Your task to perform on an android device: open device folders in google photos Image 0: 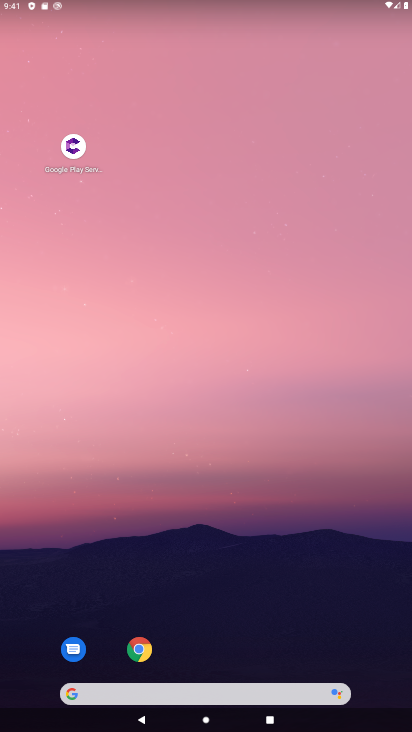
Step 0: click (347, 13)
Your task to perform on an android device: open device folders in google photos Image 1: 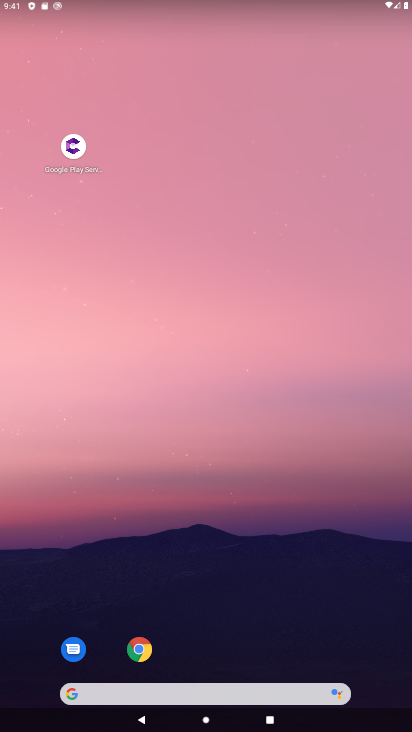
Step 1: drag from (219, 655) to (317, 68)
Your task to perform on an android device: open device folders in google photos Image 2: 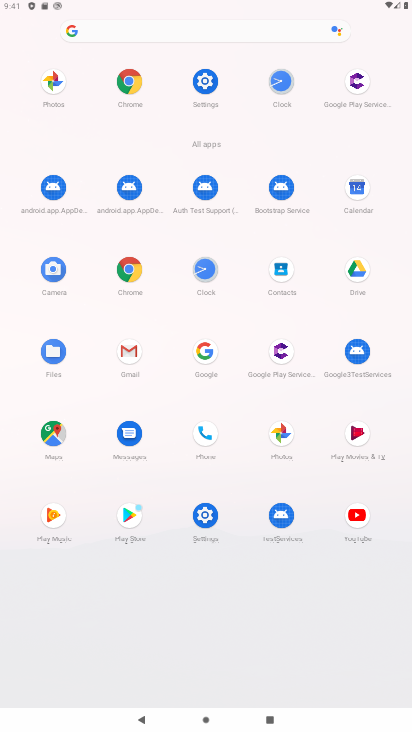
Step 2: click (274, 434)
Your task to perform on an android device: open device folders in google photos Image 3: 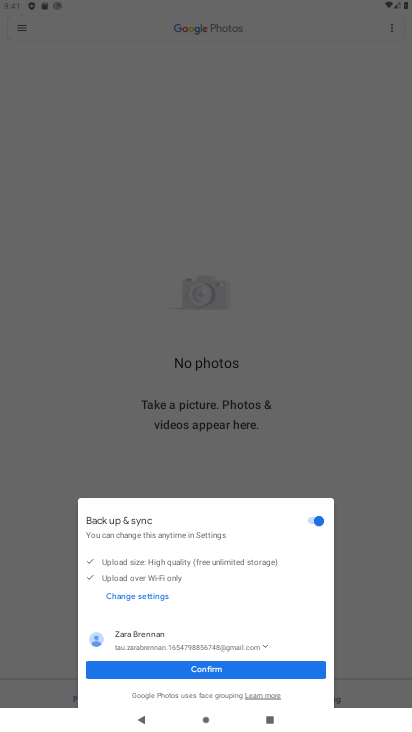
Step 3: click (208, 665)
Your task to perform on an android device: open device folders in google photos Image 4: 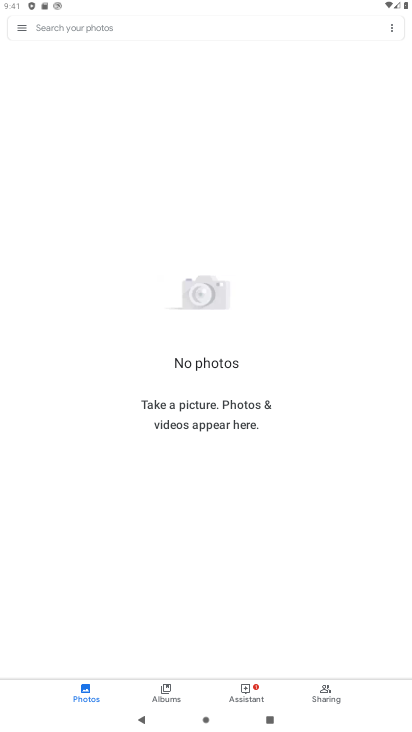
Step 4: click (28, 32)
Your task to perform on an android device: open device folders in google photos Image 5: 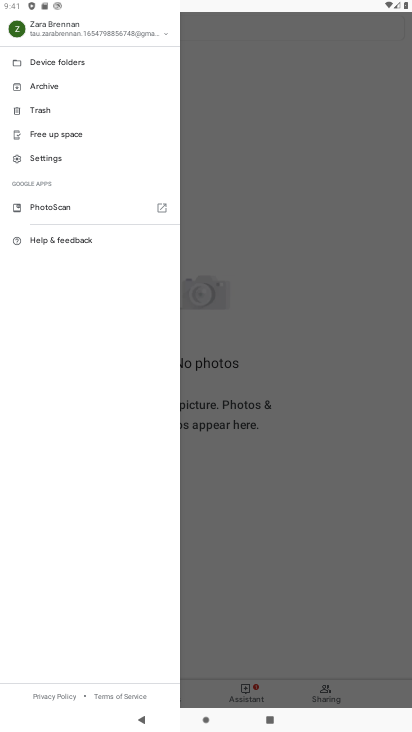
Step 5: click (29, 69)
Your task to perform on an android device: open device folders in google photos Image 6: 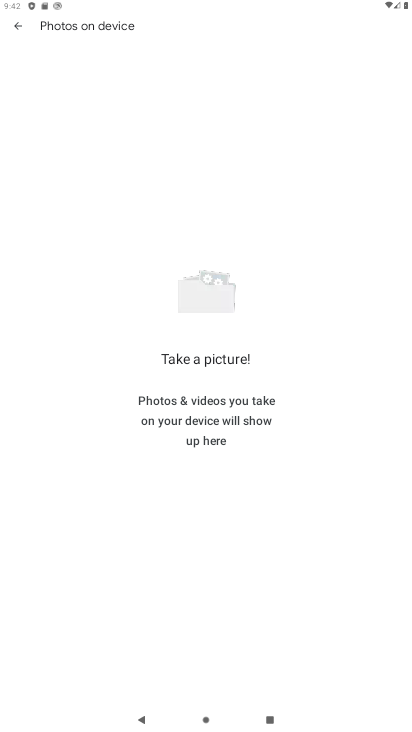
Step 6: task complete